Your task to perform on an android device: delete a single message in the gmail app Image 0: 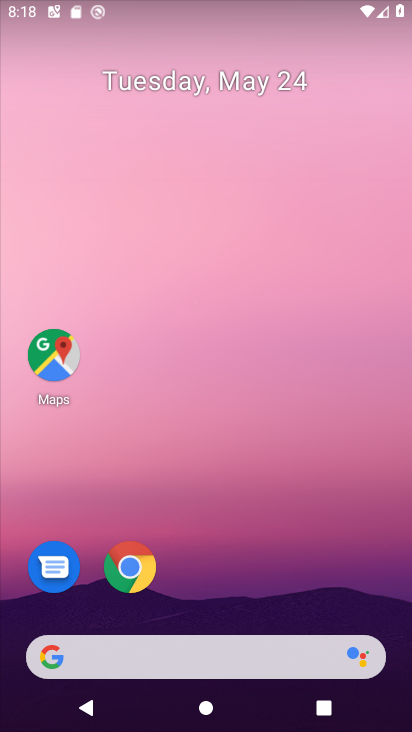
Step 0: drag from (252, 529) to (232, 18)
Your task to perform on an android device: delete a single message in the gmail app Image 1: 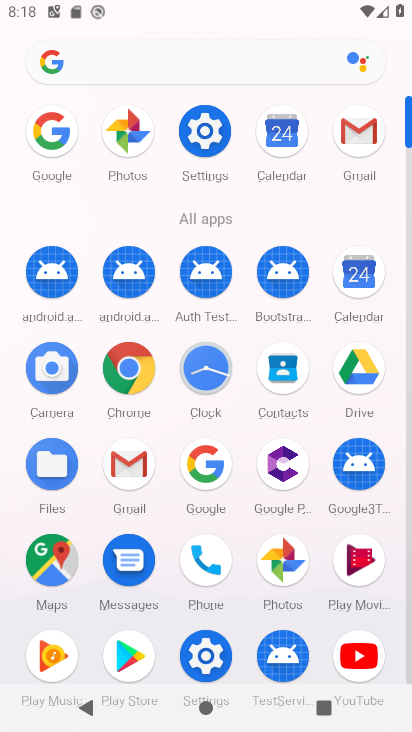
Step 1: click (136, 465)
Your task to perform on an android device: delete a single message in the gmail app Image 2: 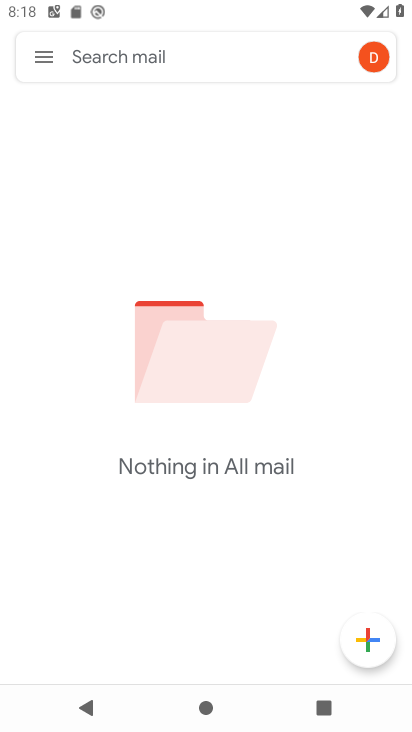
Step 2: click (44, 51)
Your task to perform on an android device: delete a single message in the gmail app Image 3: 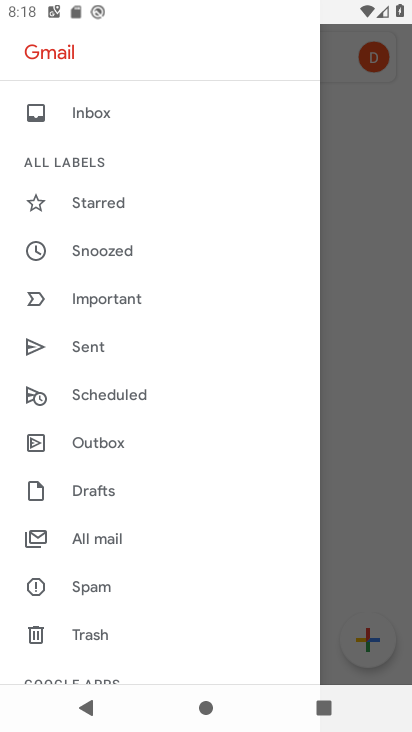
Step 3: drag from (172, 611) to (145, 291)
Your task to perform on an android device: delete a single message in the gmail app Image 4: 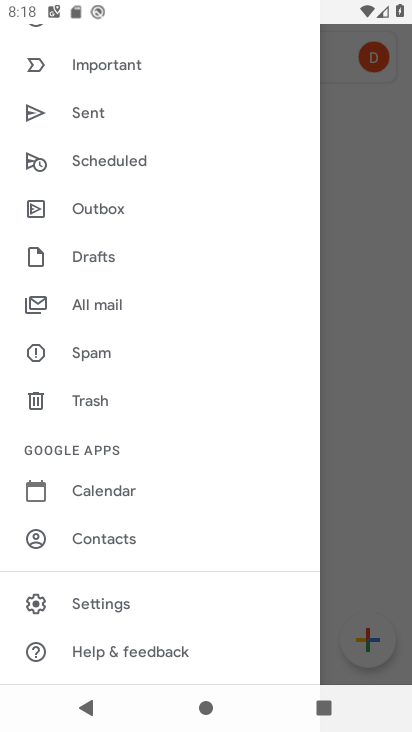
Step 4: click (148, 299)
Your task to perform on an android device: delete a single message in the gmail app Image 5: 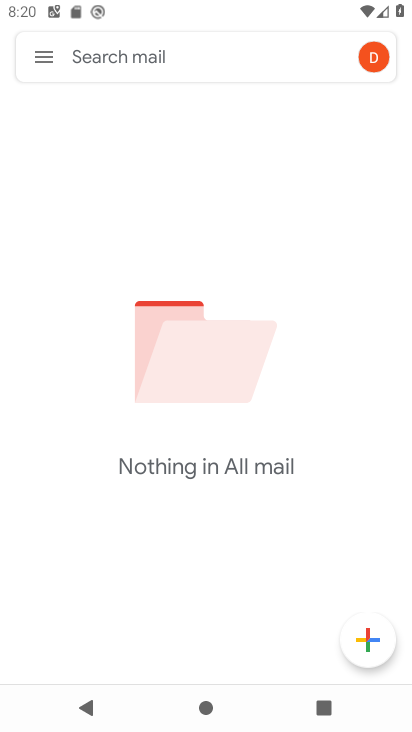
Step 5: task complete